Your task to perform on an android device: open device folders in google photos Image 0: 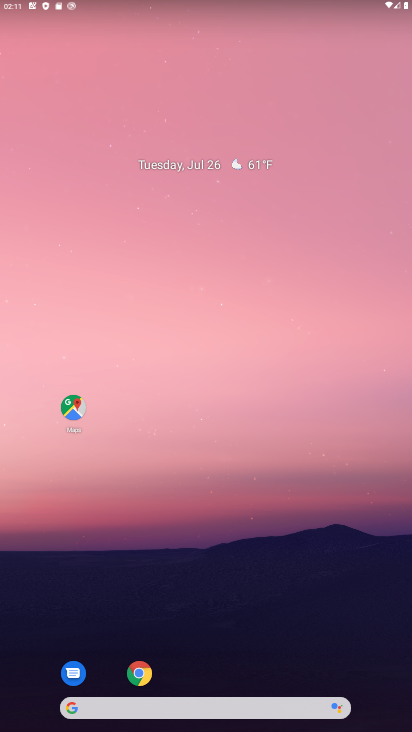
Step 0: drag from (242, 725) to (218, 214)
Your task to perform on an android device: open device folders in google photos Image 1: 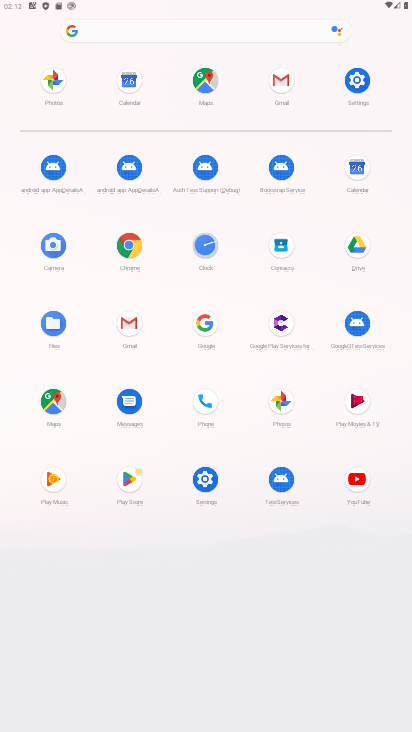
Step 1: click (283, 399)
Your task to perform on an android device: open device folders in google photos Image 2: 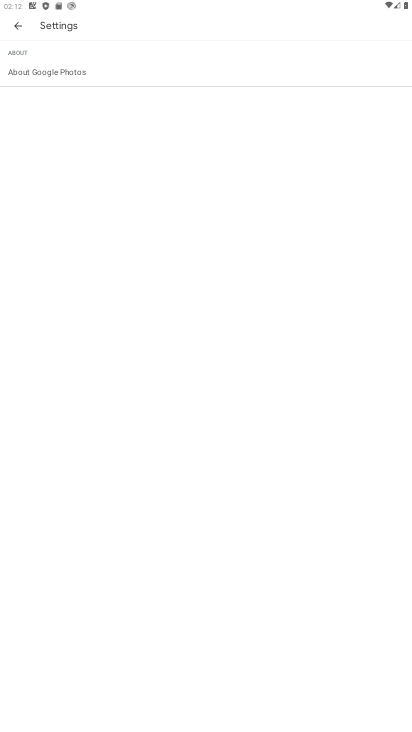
Step 2: click (16, 25)
Your task to perform on an android device: open device folders in google photos Image 3: 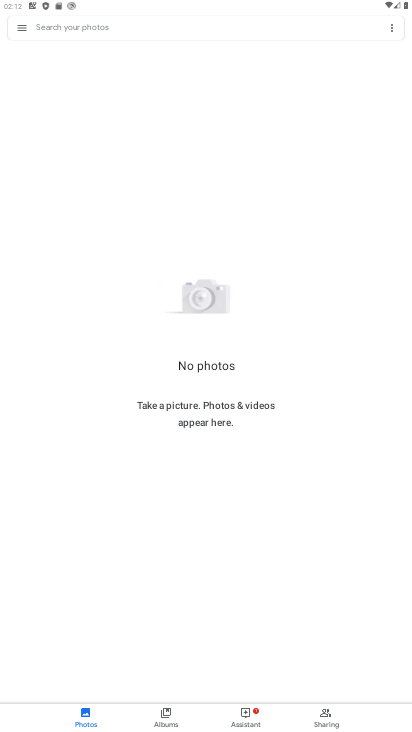
Step 3: click (17, 27)
Your task to perform on an android device: open device folders in google photos Image 4: 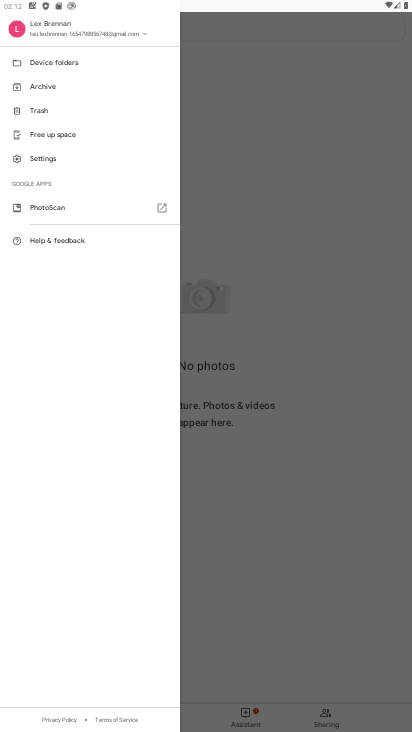
Step 4: click (52, 64)
Your task to perform on an android device: open device folders in google photos Image 5: 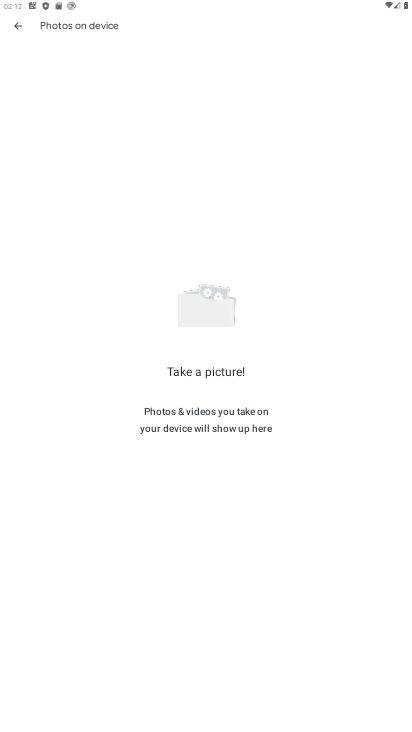
Step 5: task complete